Your task to perform on an android device: Go to sound settings Image 0: 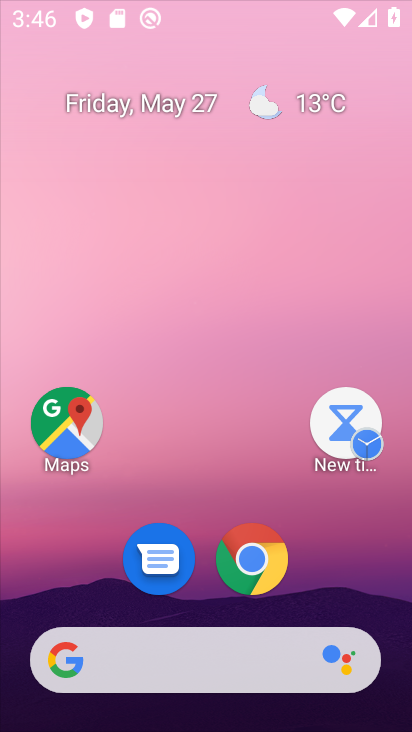
Step 0: click (33, 73)
Your task to perform on an android device: Go to sound settings Image 1: 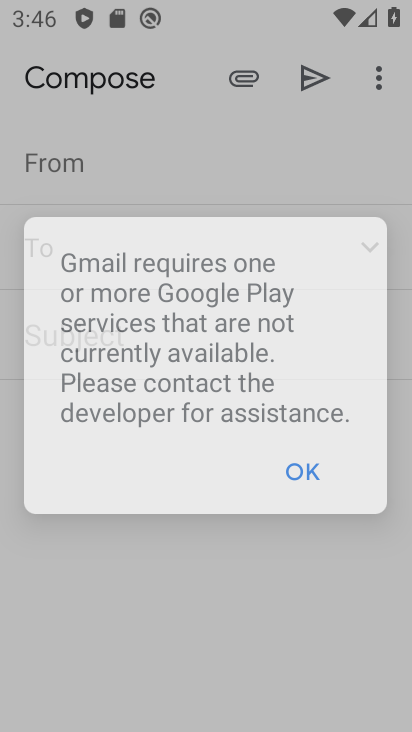
Step 1: drag from (225, 687) to (264, 55)
Your task to perform on an android device: Go to sound settings Image 2: 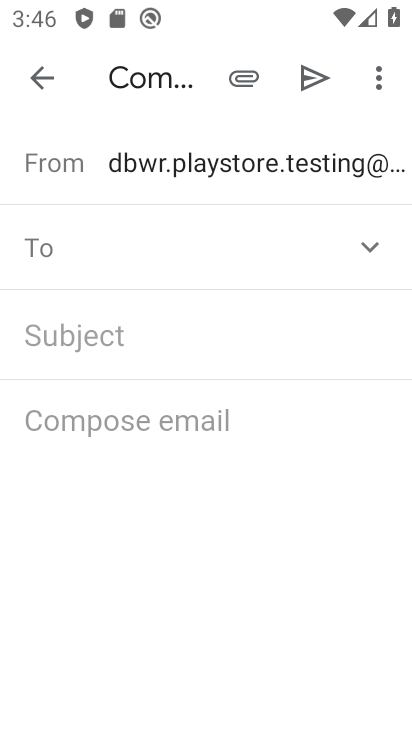
Step 2: click (286, 453)
Your task to perform on an android device: Go to sound settings Image 3: 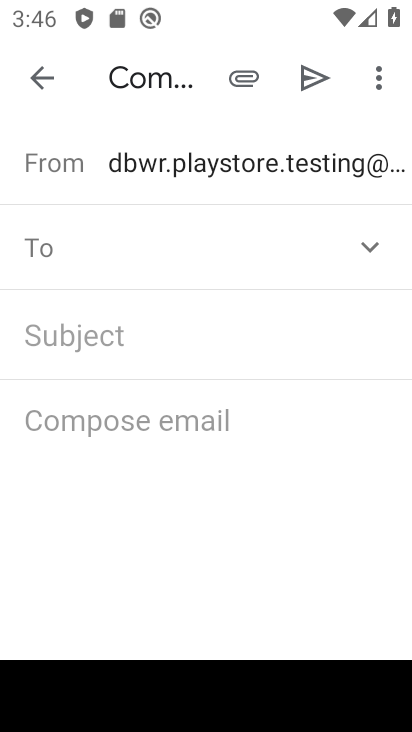
Step 3: click (25, 72)
Your task to perform on an android device: Go to sound settings Image 4: 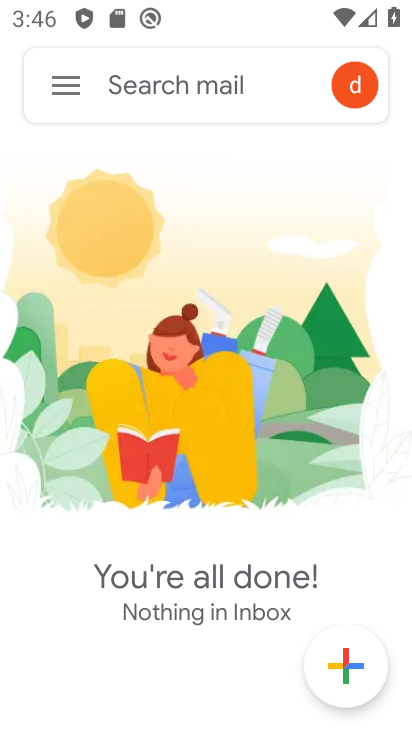
Step 4: press back button
Your task to perform on an android device: Go to sound settings Image 5: 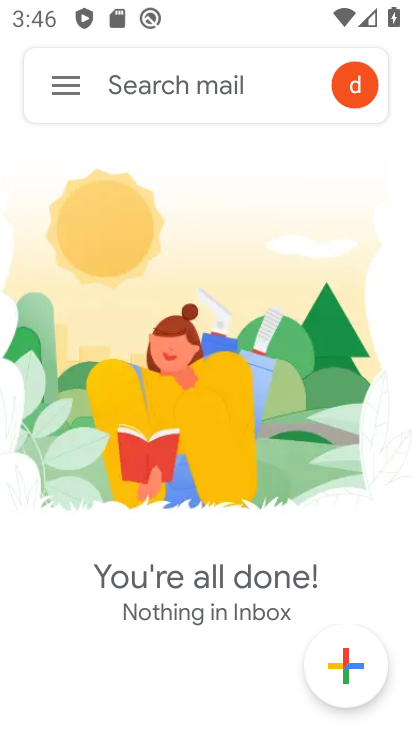
Step 5: press back button
Your task to perform on an android device: Go to sound settings Image 6: 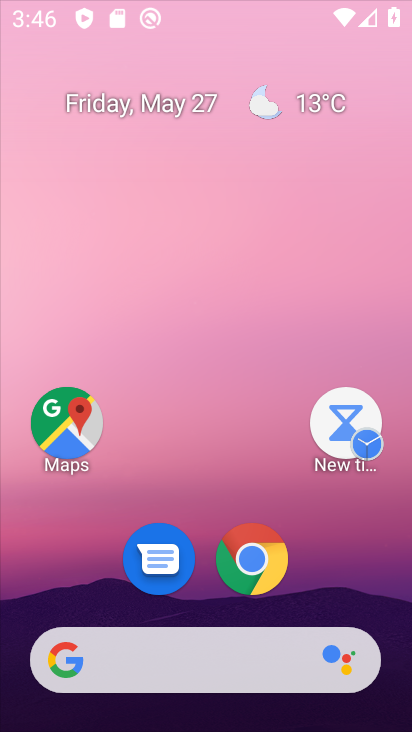
Step 6: press back button
Your task to perform on an android device: Go to sound settings Image 7: 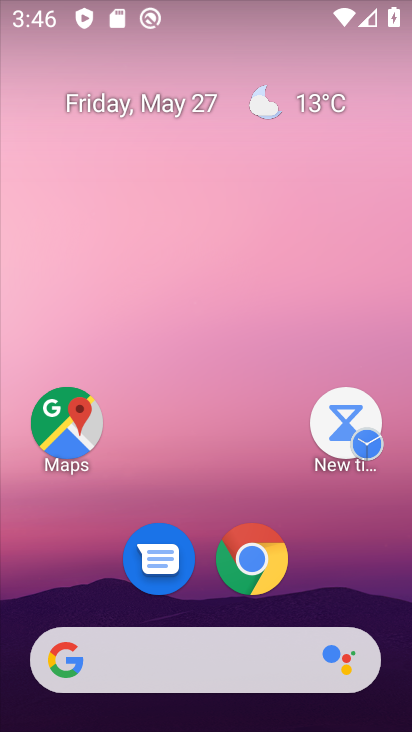
Step 7: drag from (239, 554) to (199, 141)
Your task to perform on an android device: Go to sound settings Image 8: 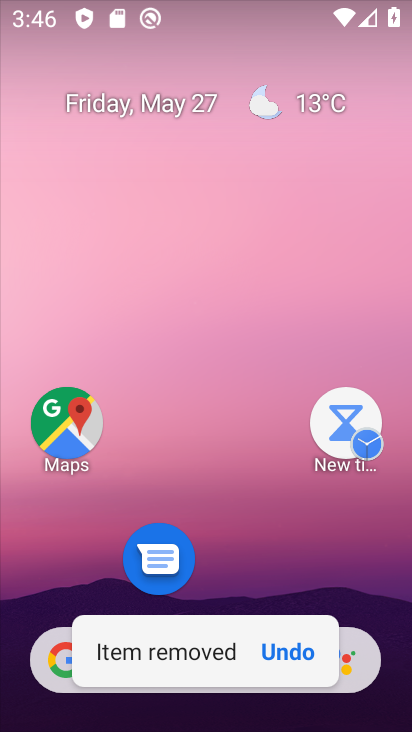
Step 8: drag from (207, 511) to (198, 120)
Your task to perform on an android device: Go to sound settings Image 9: 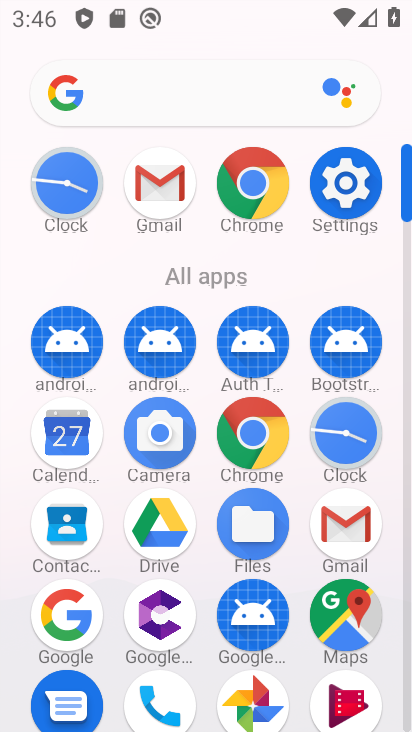
Step 9: press home button
Your task to perform on an android device: Go to sound settings Image 10: 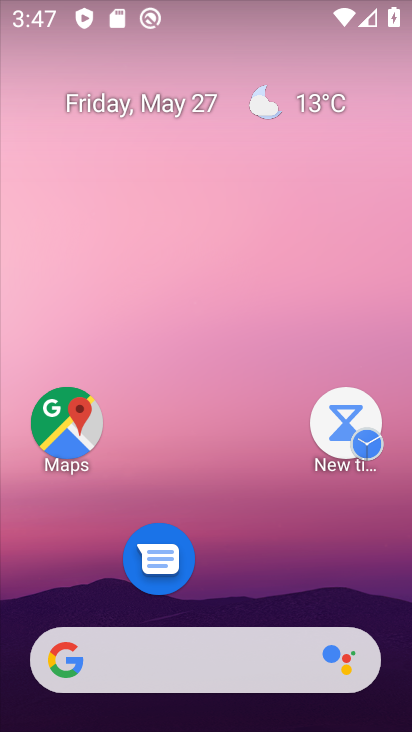
Step 10: drag from (229, 674) to (213, 31)
Your task to perform on an android device: Go to sound settings Image 11: 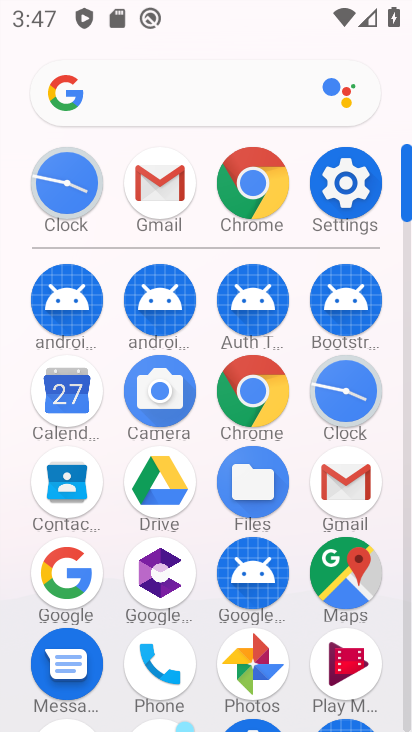
Step 11: click (347, 177)
Your task to perform on an android device: Go to sound settings Image 12: 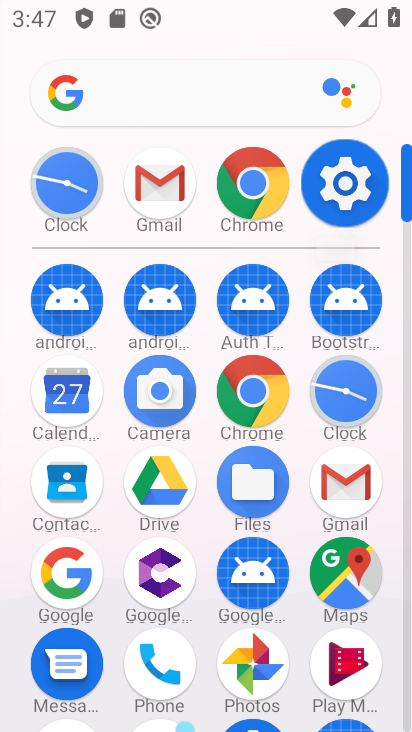
Step 12: click (347, 177)
Your task to perform on an android device: Go to sound settings Image 13: 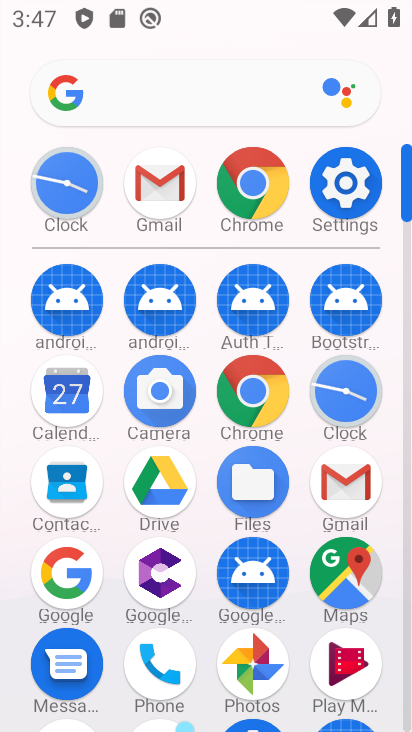
Step 13: click (346, 178)
Your task to perform on an android device: Go to sound settings Image 14: 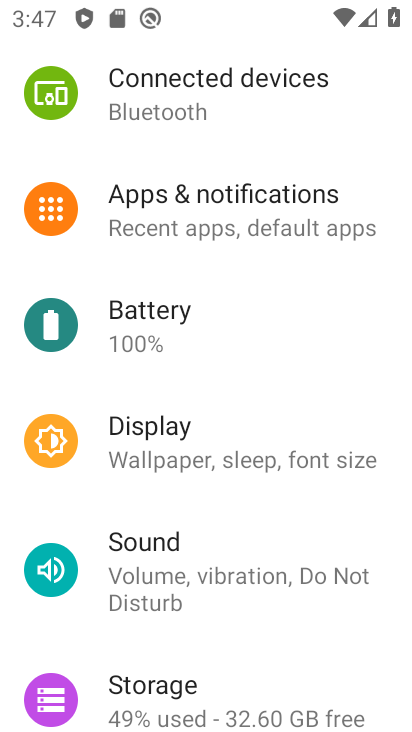
Step 14: click (133, 562)
Your task to perform on an android device: Go to sound settings Image 15: 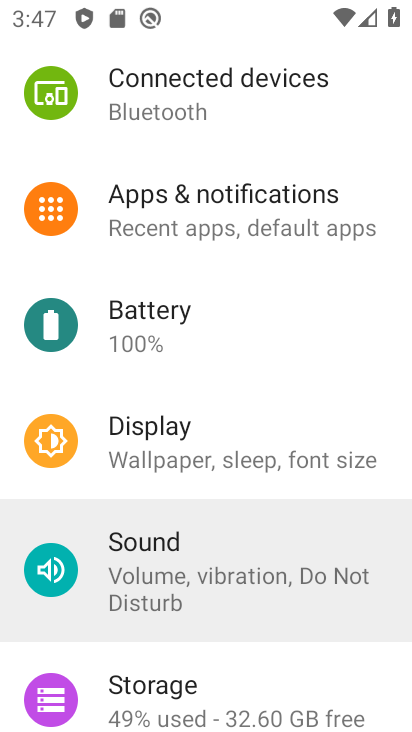
Step 15: click (136, 569)
Your task to perform on an android device: Go to sound settings Image 16: 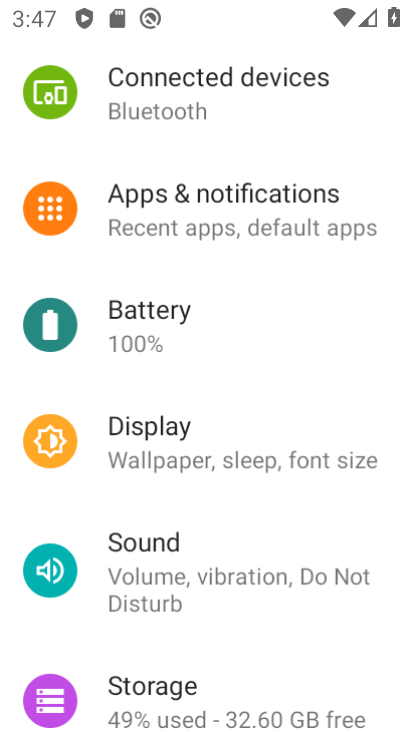
Step 16: click (138, 568)
Your task to perform on an android device: Go to sound settings Image 17: 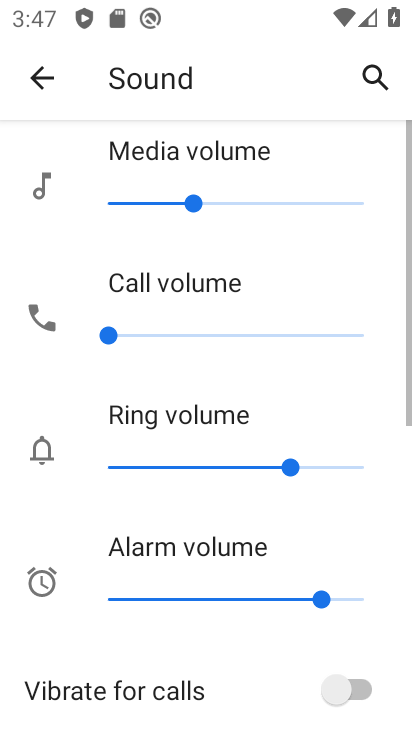
Step 17: click (141, 560)
Your task to perform on an android device: Go to sound settings Image 18: 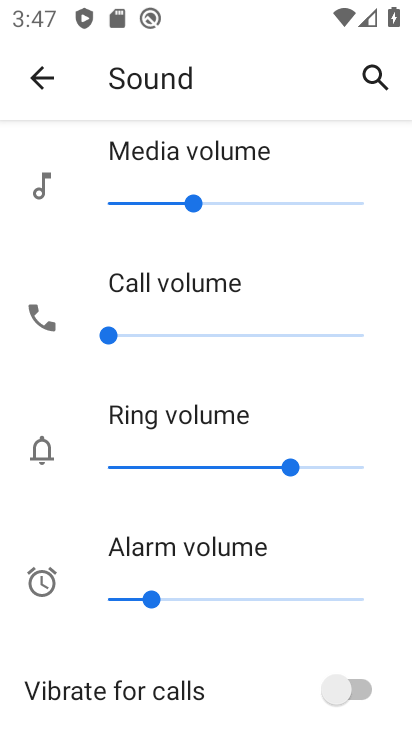
Step 18: drag from (219, 599) to (224, 154)
Your task to perform on an android device: Go to sound settings Image 19: 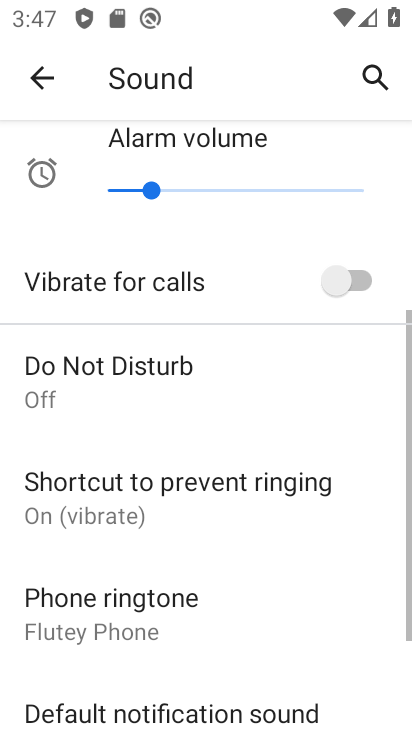
Step 19: drag from (215, 402) to (208, 82)
Your task to perform on an android device: Go to sound settings Image 20: 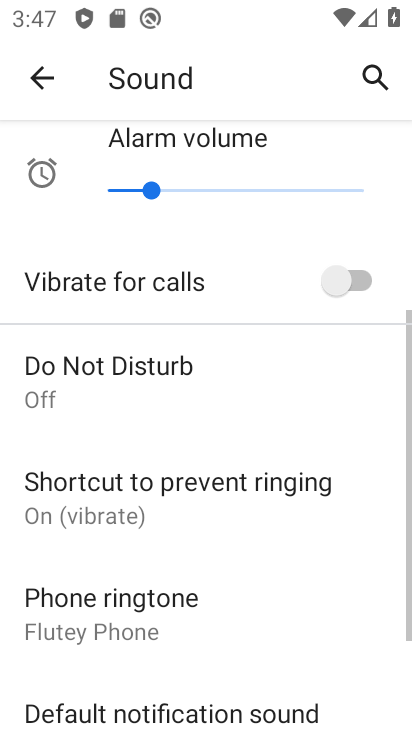
Step 20: click (162, 167)
Your task to perform on an android device: Go to sound settings Image 21: 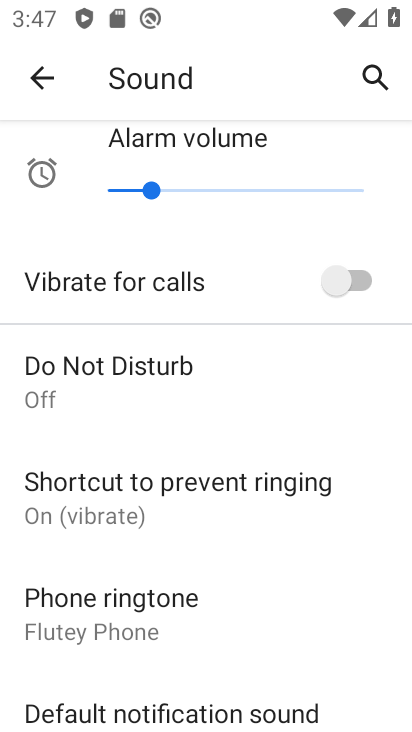
Step 21: drag from (242, 201) to (194, 114)
Your task to perform on an android device: Go to sound settings Image 22: 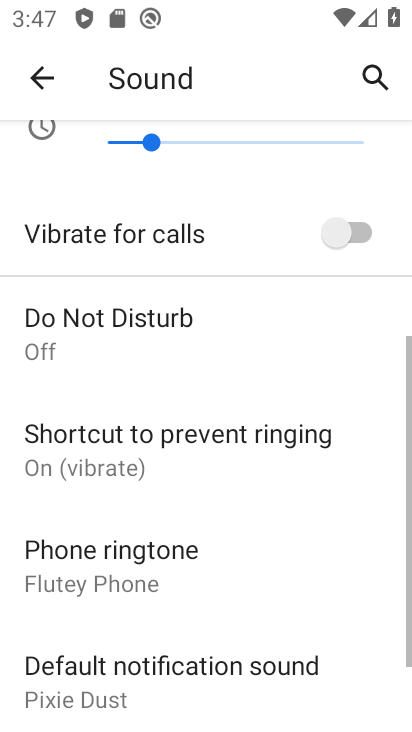
Step 22: click (203, 57)
Your task to perform on an android device: Go to sound settings Image 23: 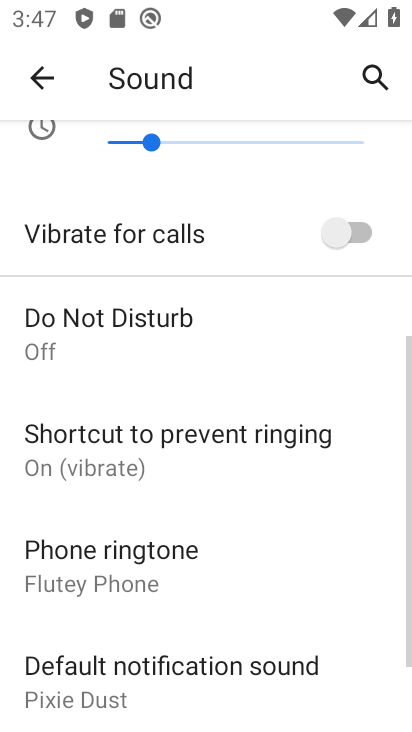
Step 23: drag from (237, 206) to (250, 91)
Your task to perform on an android device: Go to sound settings Image 24: 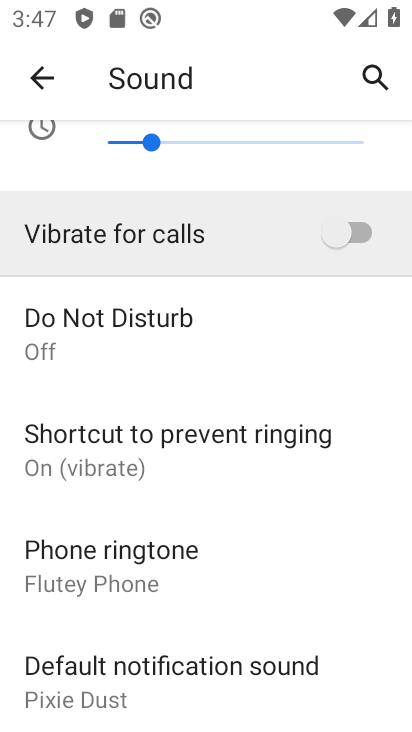
Step 24: click (215, 51)
Your task to perform on an android device: Go to sound settings Image 25: 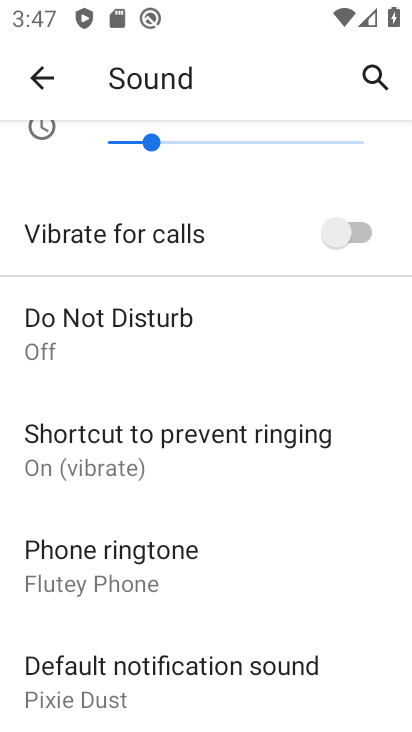
Step 25: task complete